Your task to perform on an android device: open app "Expedia: Hotels, Flights & Car" Image 0: 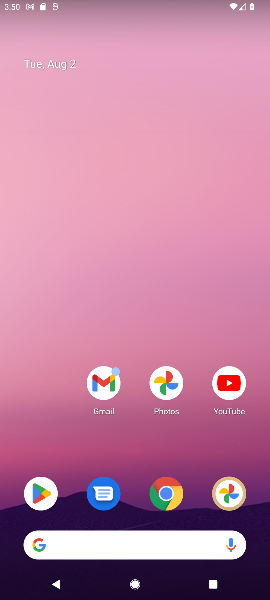
Step 0: click (37, 498)
Your task to perform on an android device: open app "Expedia: Hotels, Flights & Car" Image 1: 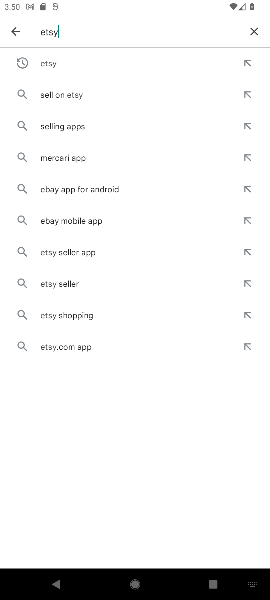
Step 1: click (251, 25)
Your task to perform on an android device: open app "Expedia: Hotels, Flights & Car" Image 2: 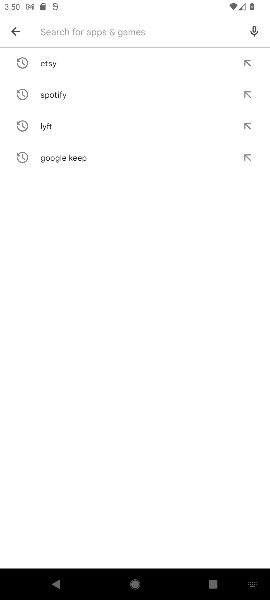
Step 2: click (105, 29)
Your task to perform on an android device: open app "Expedia: Hotels, Flights & Car" Image 3: 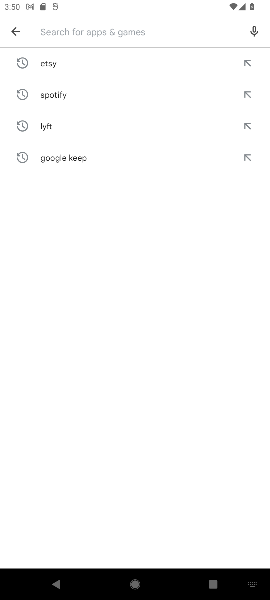
Step 3: type "Expedia "
Your task to perform on an android device: open app "Expedia: Hotels, Flights & Car" Image 4: 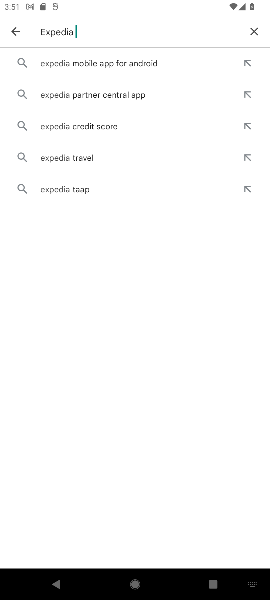
Step 4: click (100, 25)
Your task to perform on an android device: open app "Expedia: Hotels, Flights & Car" Image 5: 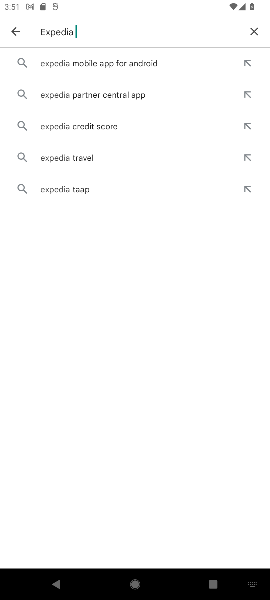
Step 5: click (80, 31)
Your task to perform on an android device: open app "Expedia: Hotels, Flights & Car" Image 6: 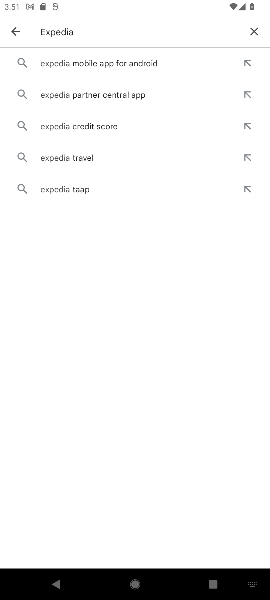
Step 6: click (89, 62)
Your task to perform on an android device: open app "Expedia: Hotels, Flights & Car" Image 7: 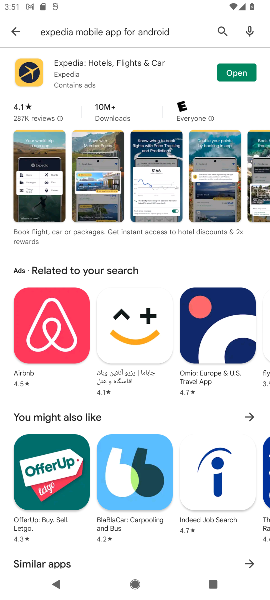
Step 7: click (239, 68)
Your task to perform on an android device: open app "Expedia: Hotels, Flights & Car" Image 8: 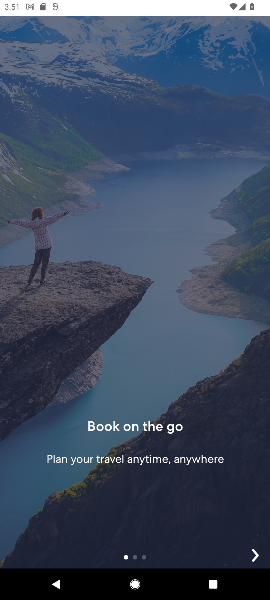
Step 8: click (255, 558)
Your task to perform on an android device: open app "Expedia: Hotels, Flights & Car" Image 9: 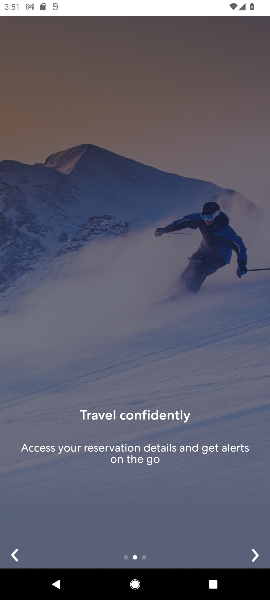
Step 9: click (255, 558)
Your task to perform on an android device: open app "Expedia: Hotels, Flights & Car" Image 10: 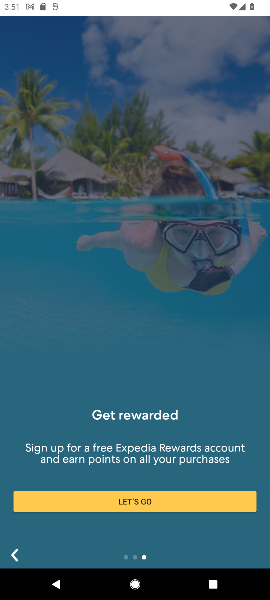
Step 10: click (151, 499)
Your task to perform on an android device: open app "Expedia: Hotels, Flights & Car" Image 11: 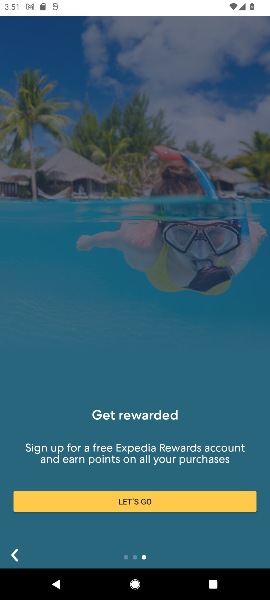
Step 11: click (128, 499)
Your task to perform on an android device: open app "Expedia: Hotels, Flights & Car" Image 12: 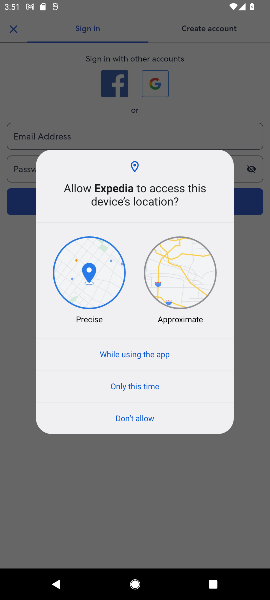
Step 12: click (128, 355)
Your task to perform on an android device: open app "Expedia: Hotels, Flights & Car" Image 13: 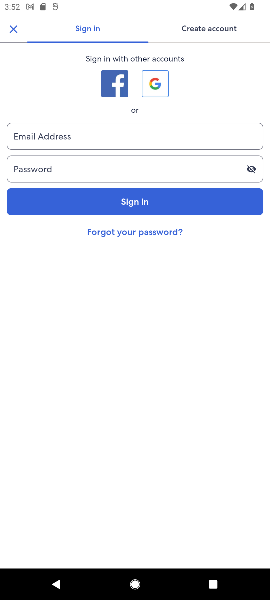
Step 13: task complete